Your task to perform on an android device: Look up the best rated coffee maker on Lowe's. Image 0: 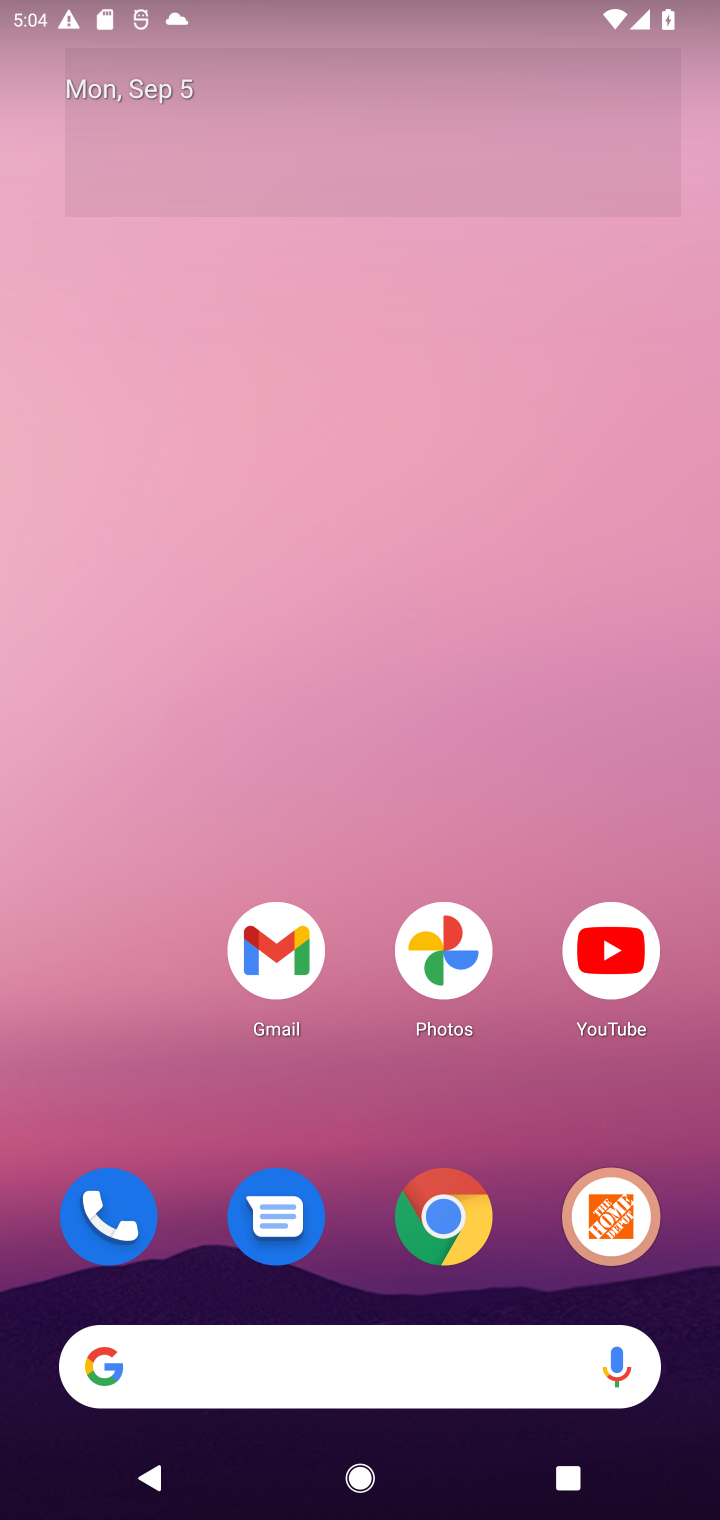
Step 0: click (91, 1375)
Your task to perform on an android device: Look up the best rated coffee maker on Lowe's. Image 1: 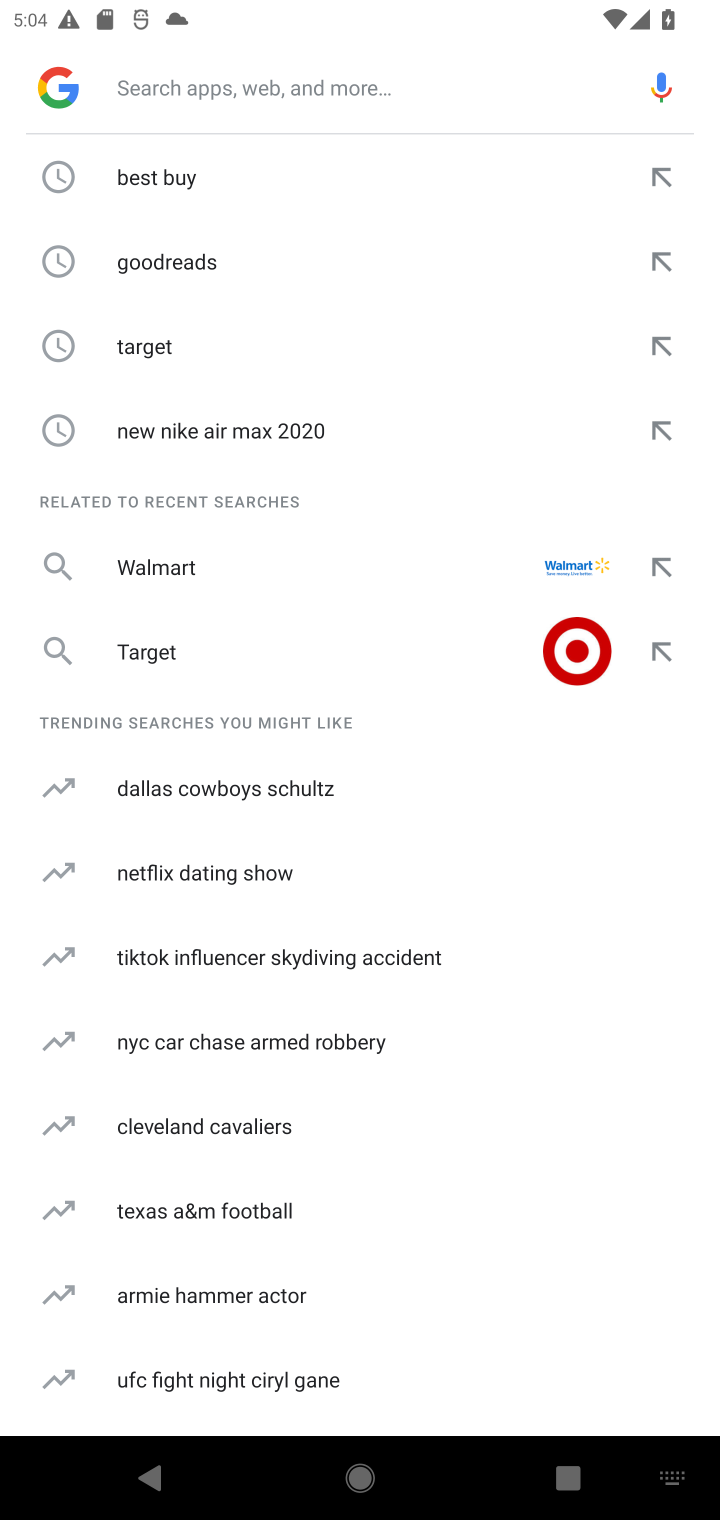
Step 1: type "Lowe's"
Your task to perform on an android device: Look up the best rated coffee maker on Lowe's. Image 2: 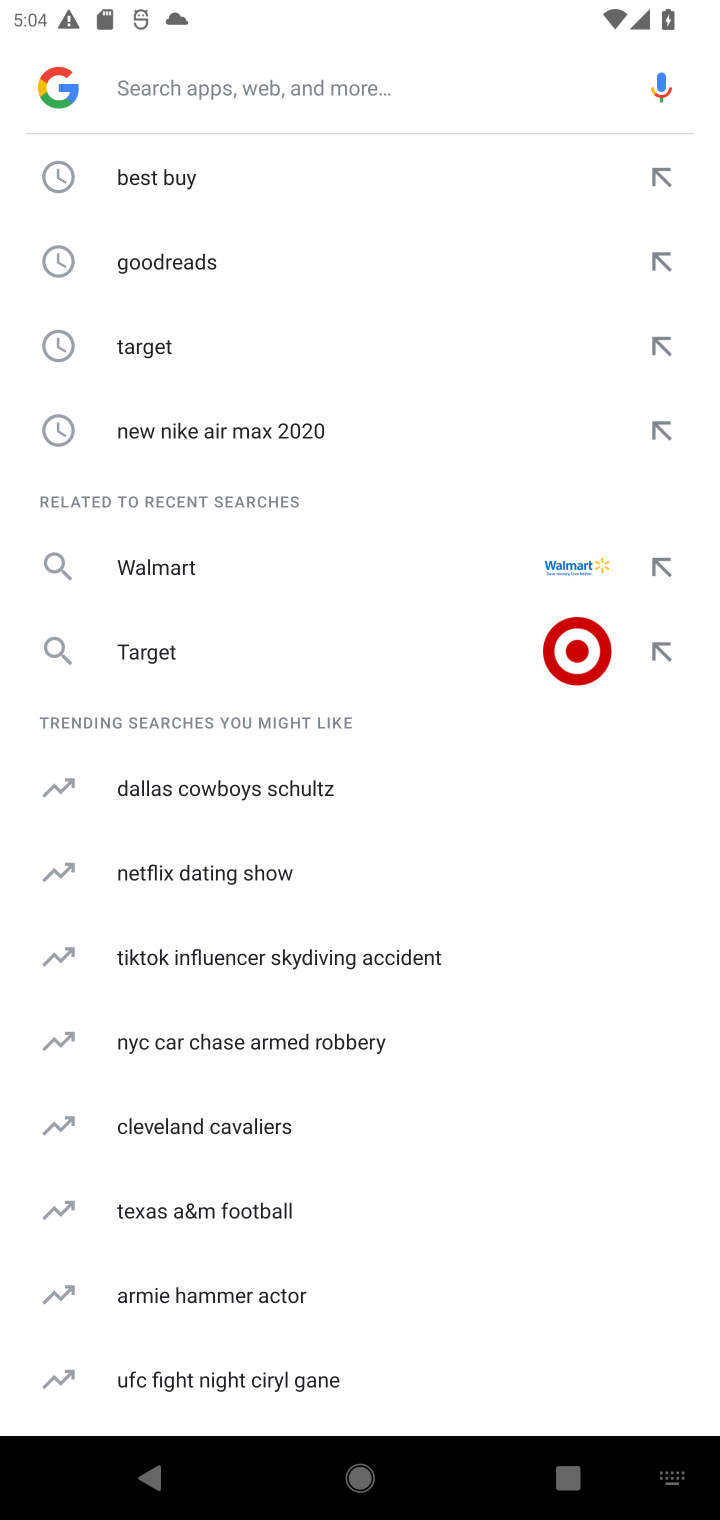
Step 2: click (209, 95)
Your task to perform on an android device: Look up the best rated coffee maker on Lowe's. Image 3: 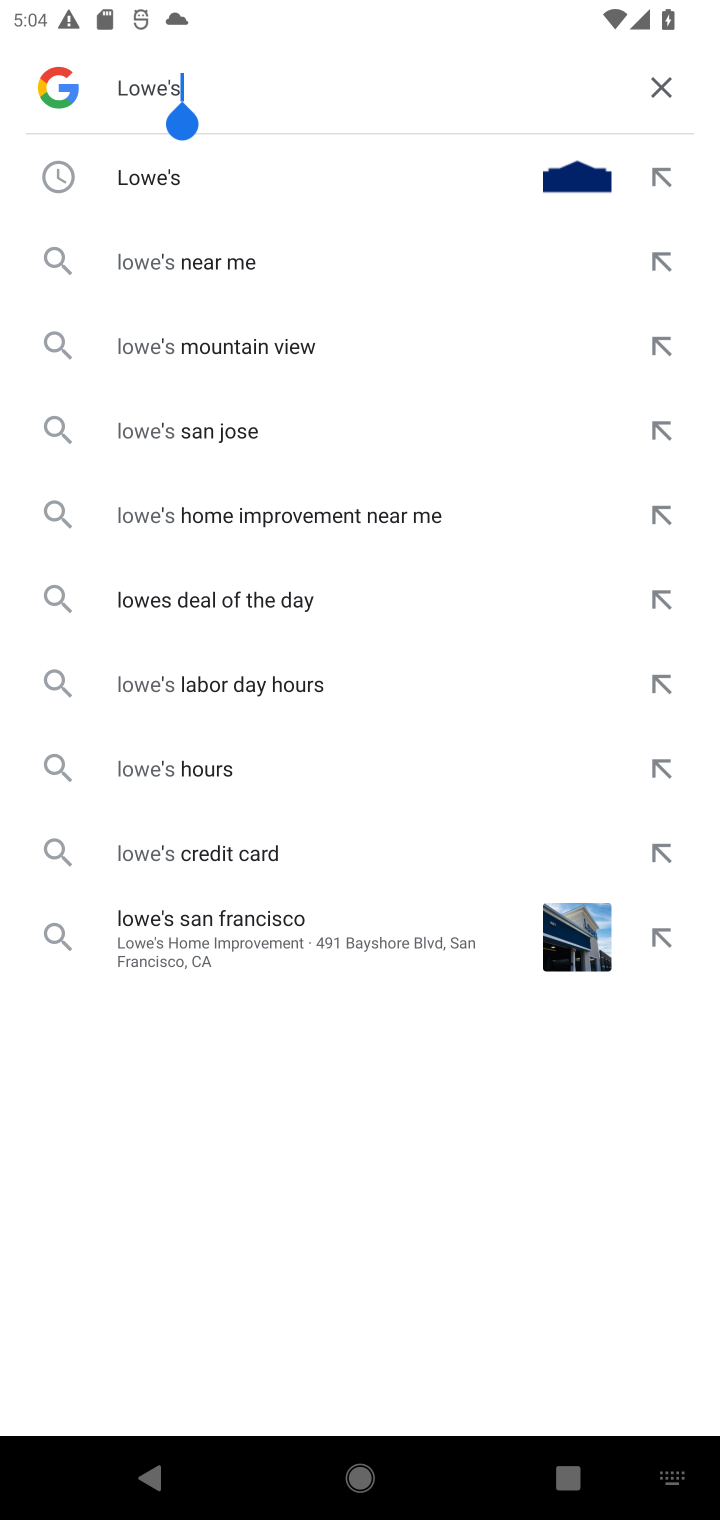
Step 3: press enter
Your task to perform on an android device: Look up the best rated coffee maker on Lowe's. Image 4: 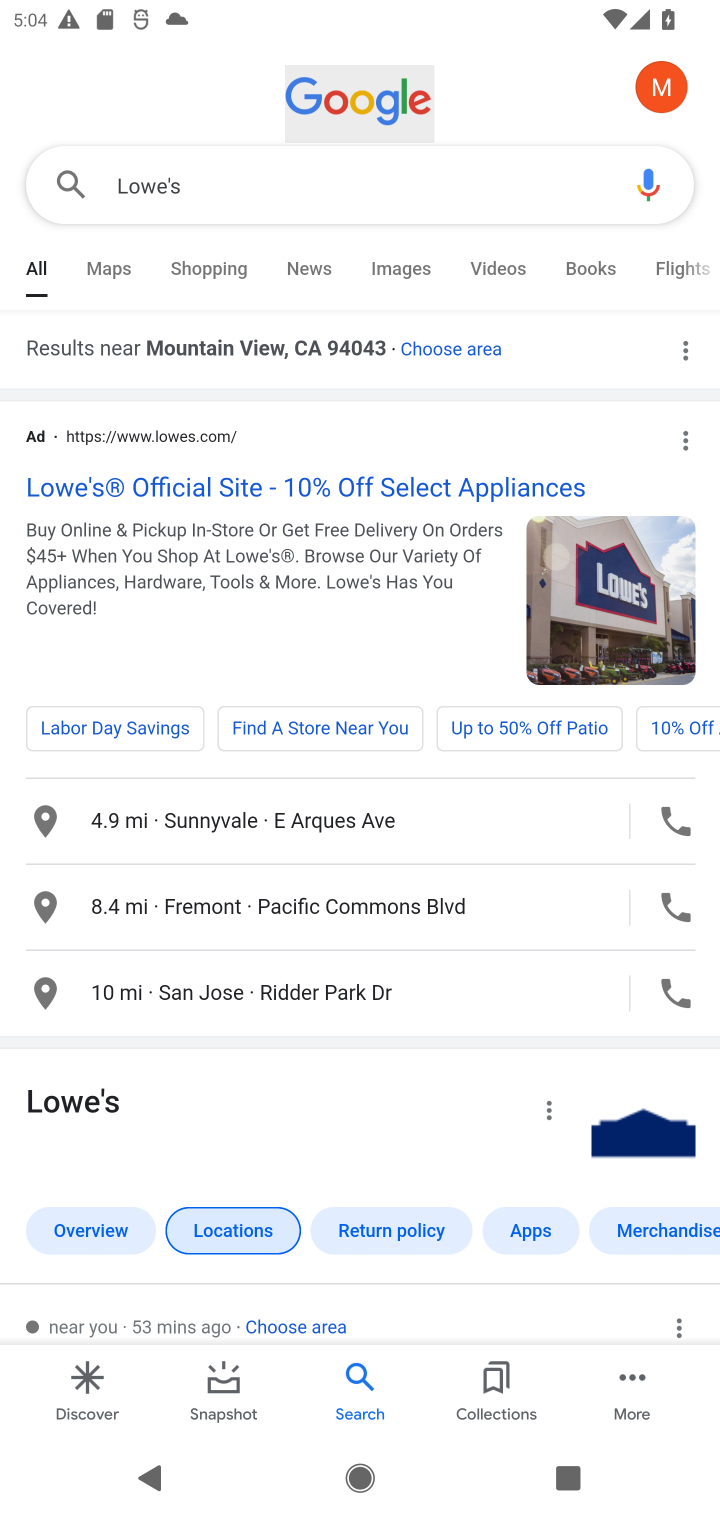
Step 4: drag from (206, 1130) to (212, 202)
Your task to perform on an android device: Look up the best rated coffee maker on Lowe's. Image 5: 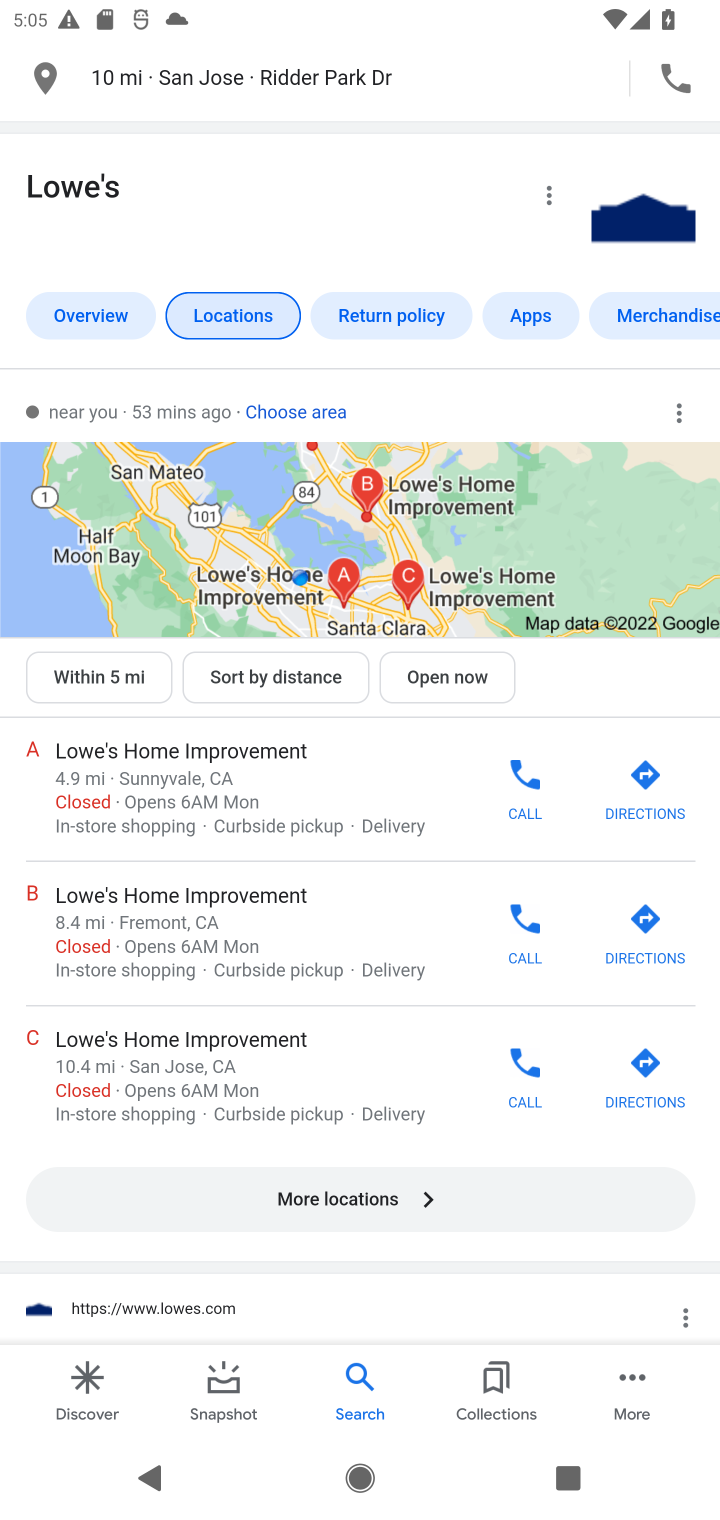
Step 5: drag from (296, 774) to (281, 584)
Your task to perform on an android device: Look up the best rated coffee maker on Lowe's. Image 6: 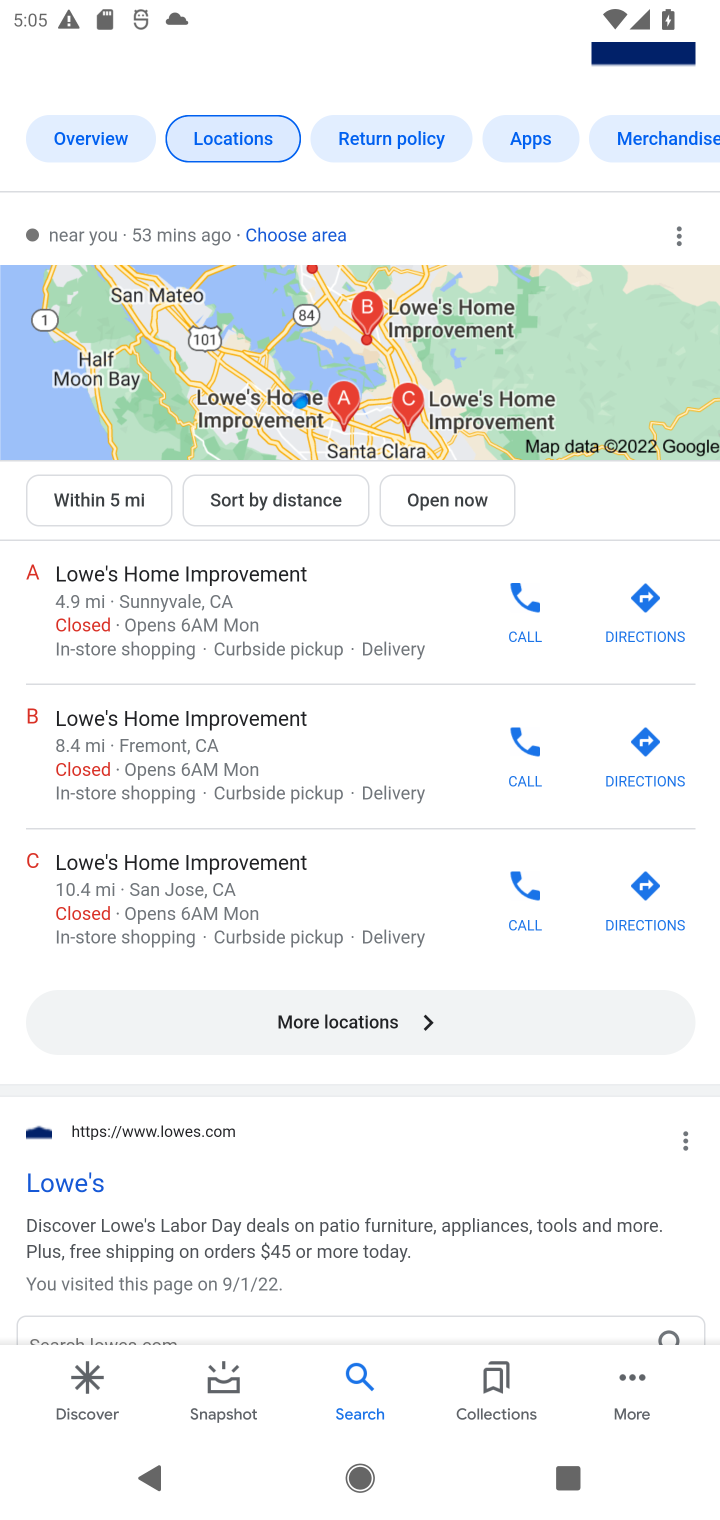
Step 6: click (76, 1184)
Your task to perform on an android device: Look up the best rated coffee maker on Lowe's. Image 7: 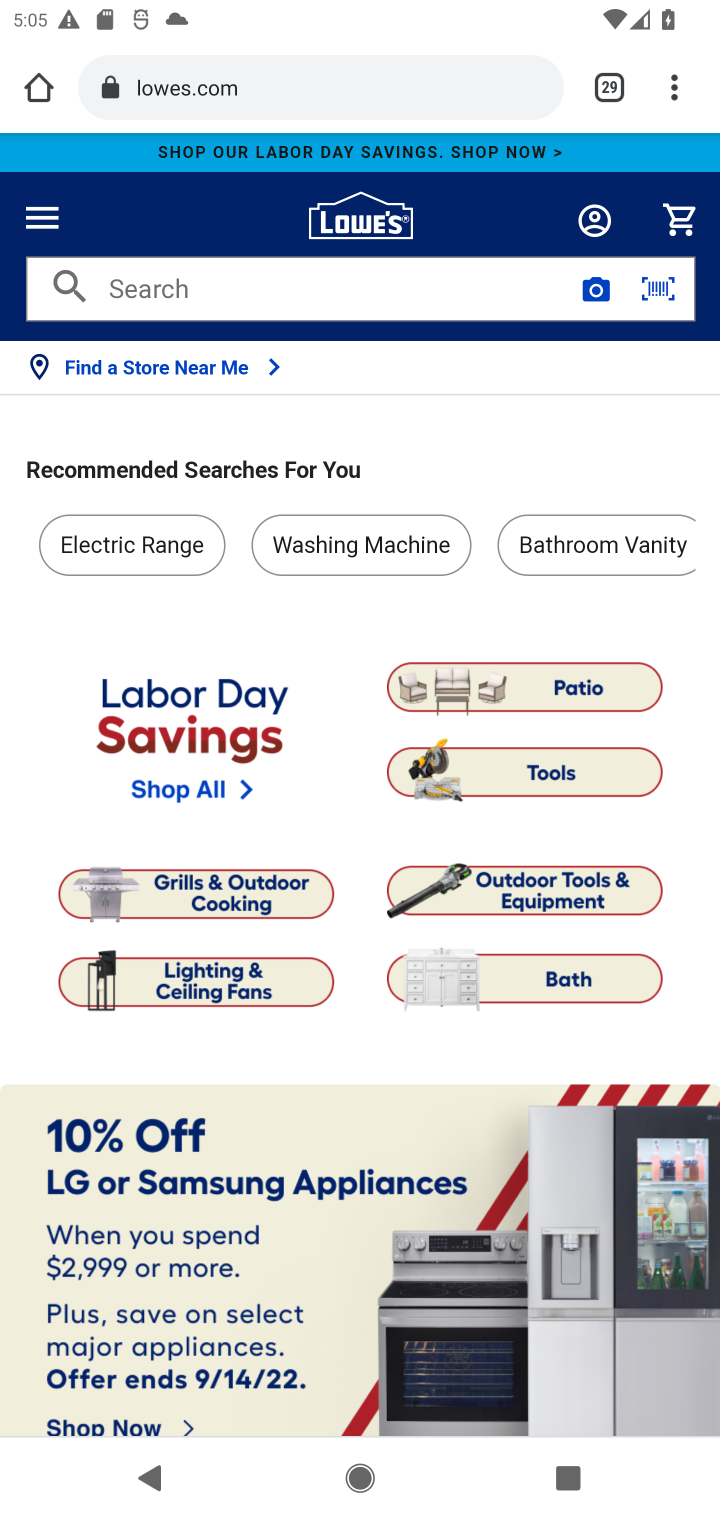
Step 7: click (220, 280)
Your task to perform on an android device: Look up the best rated coffee maker on Lowe's. Image 8: 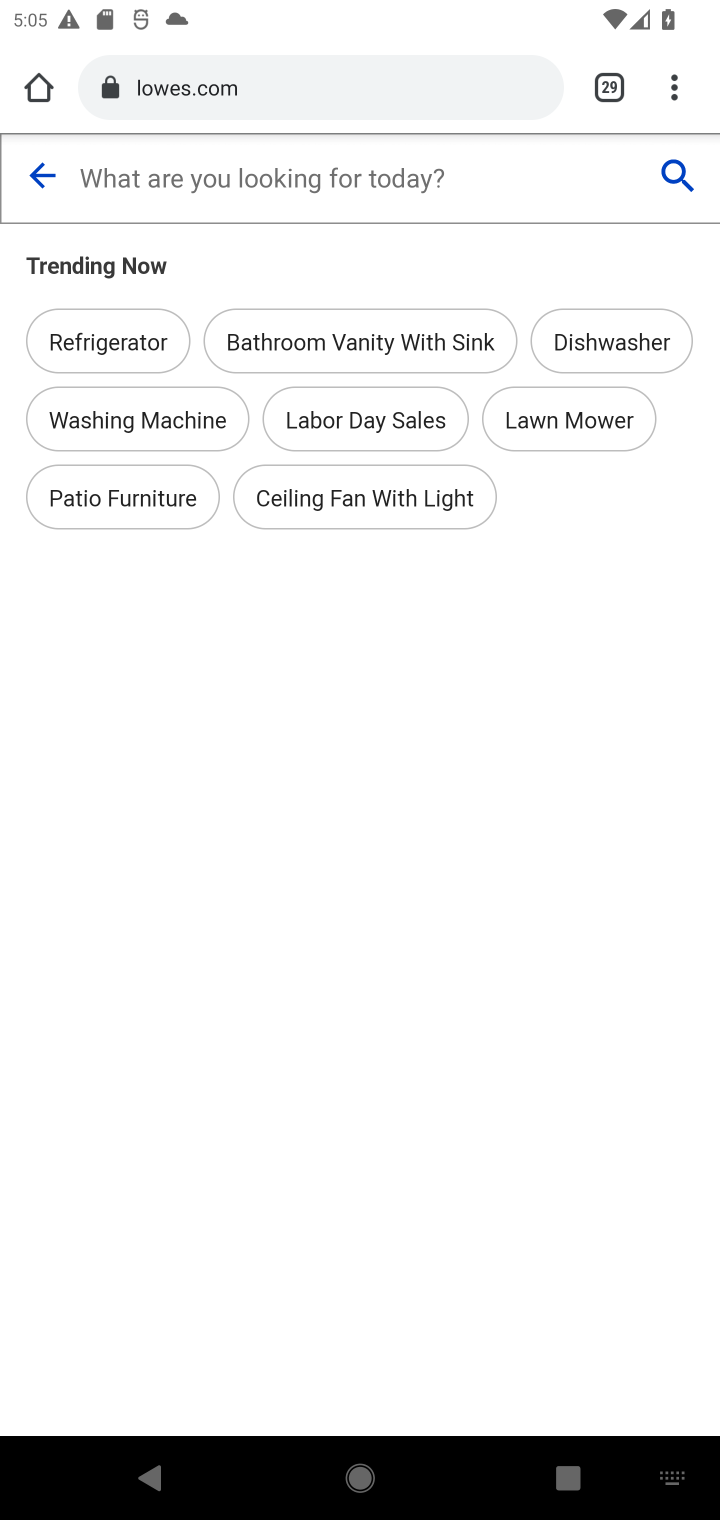
Step 8: type "coffee maker"
Your task to perform on an android device: Look up the best rated coffee maker on Lowe's. Image 9: 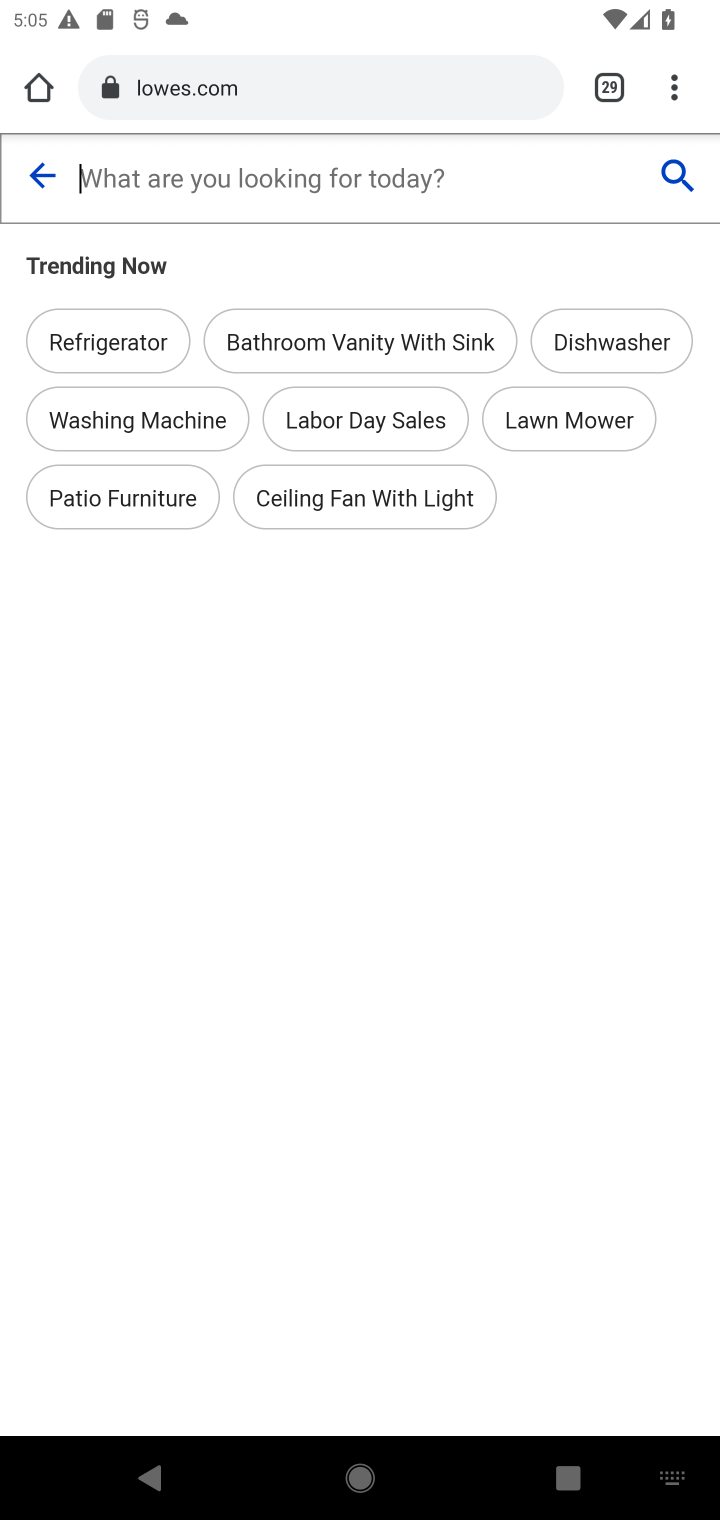
Step 9: click (189, 198)
Your task to perform on an android device: Look up the best rated coffee maker on Lowe's. Image 10: 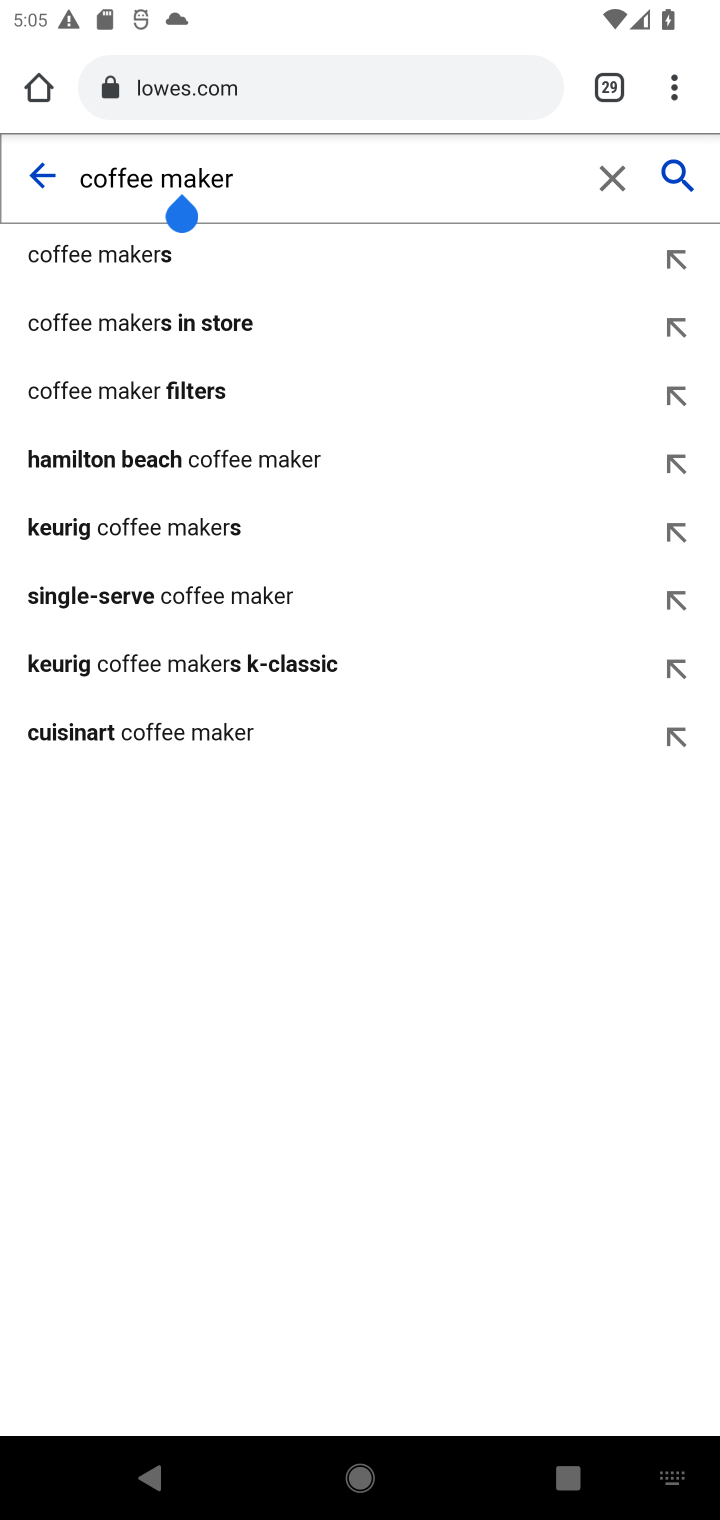
Step 10: press enter
Your task to perform on an android device: Look up the best rated coffee maker on Lowe's. Image 11: 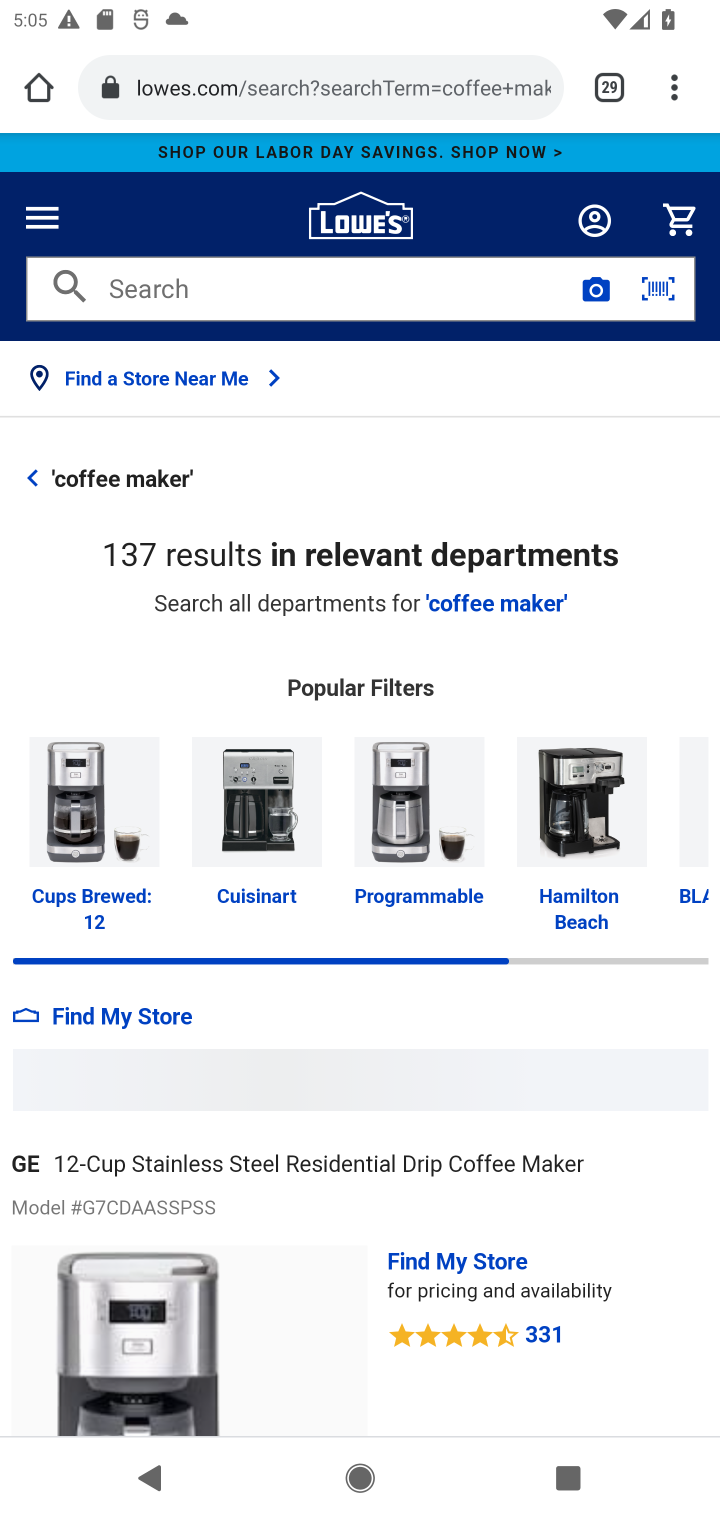
Step 11: drag from (603, 1197) to (547, 589)
Your task to perform on an android device: Look up the best rated coffee maker on Lowe's. Image 12: 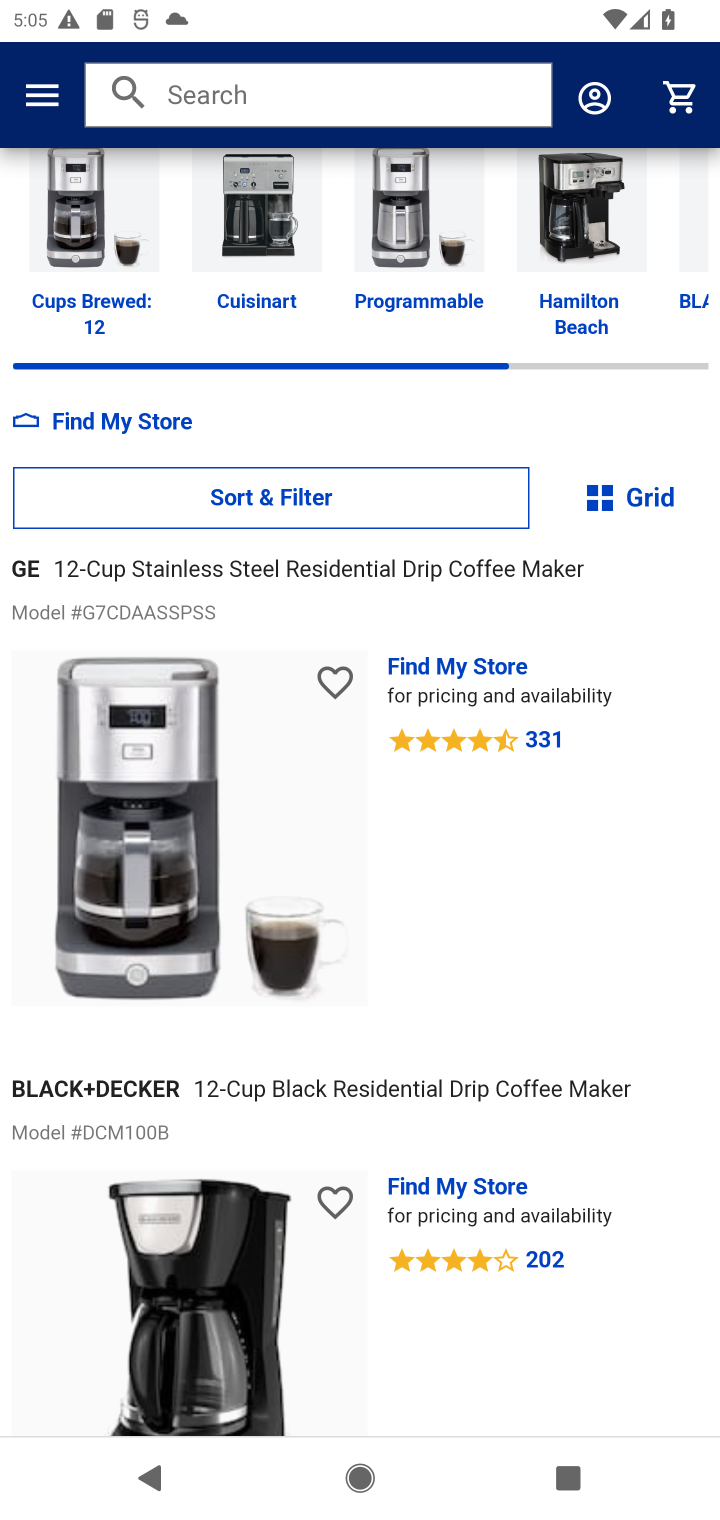
Step 12: click (278, 494)
Your task to perform on an android device: Look up the best rated coffee maker on Lowe's. Image 13: 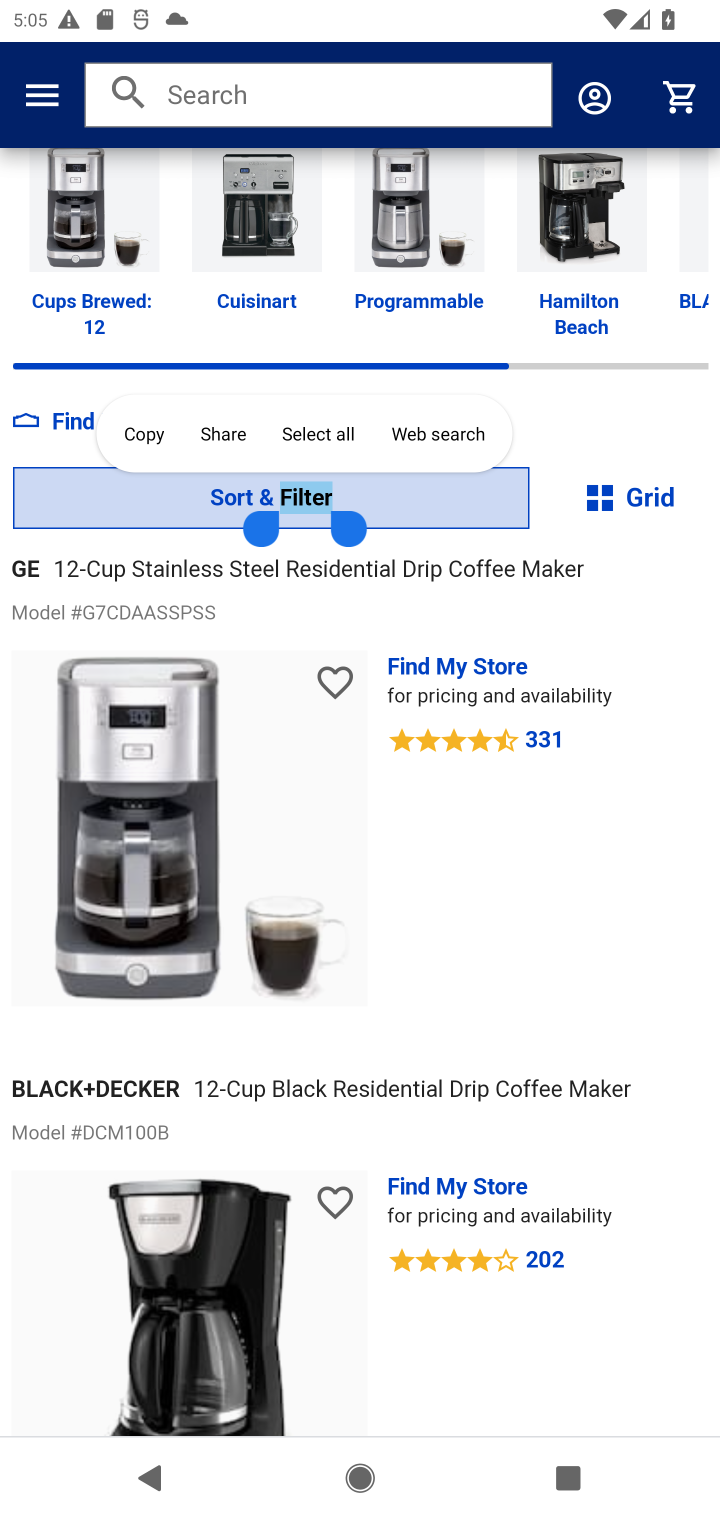
Step 13: click (155, 501)
Your task to perform on an android device: Look up the best rated coffee maker on Lowe's. Image 14: 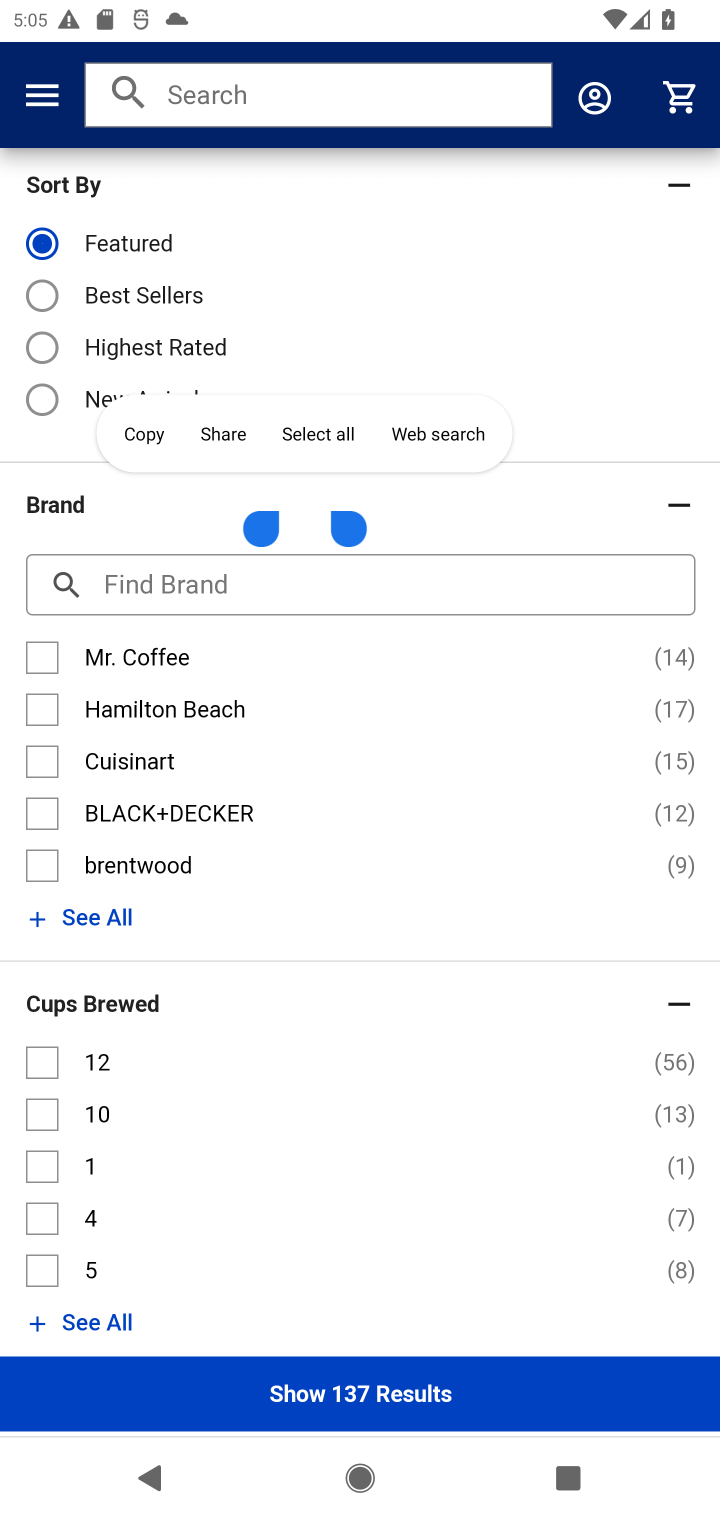
Step 14: drag from (509, 202) to (529, 282)
Your task to perform on an android device: Look up the best rated coffee maker on Lowe's. Image 15: 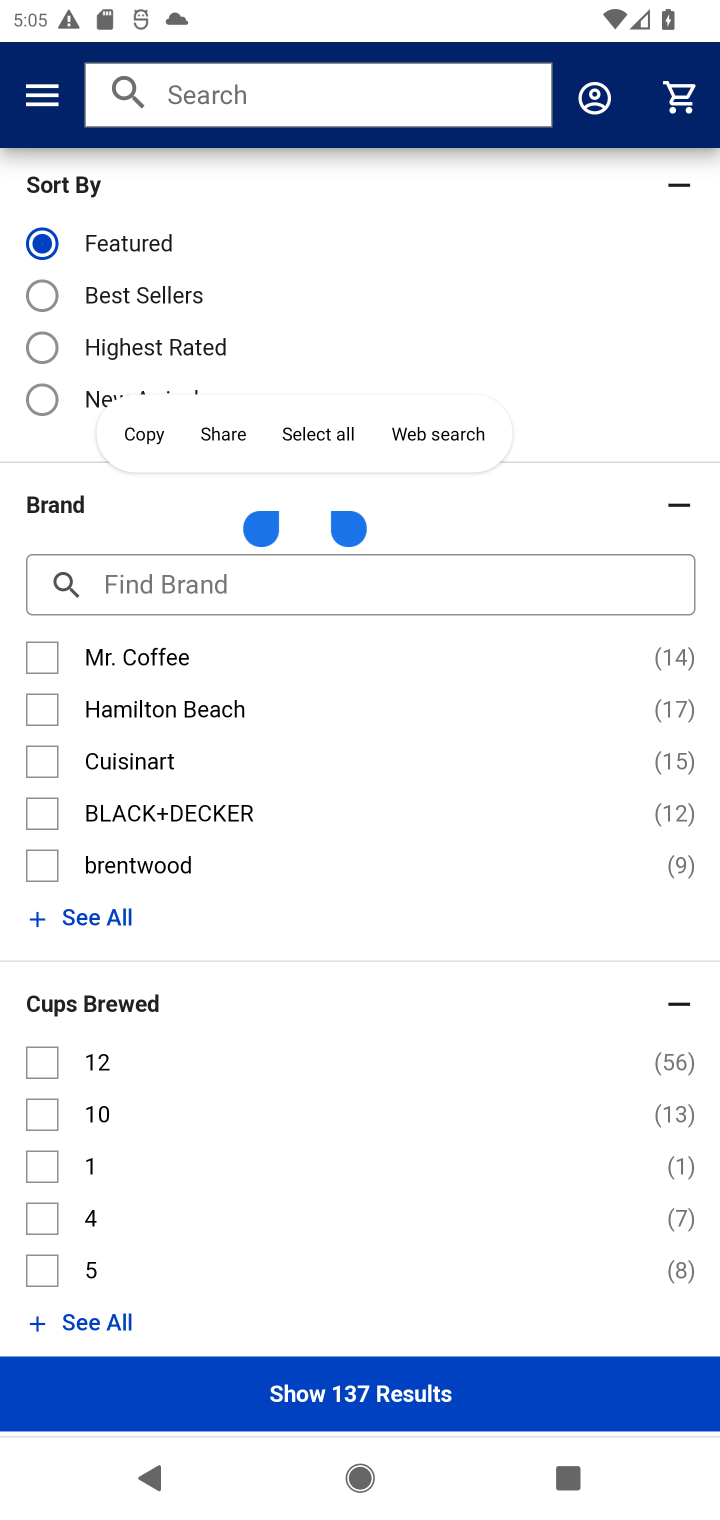
Step 15: click (47, 345)
Your task to perform on an android device: Look up the best rated coffee maker on Lowe's. Image 16: 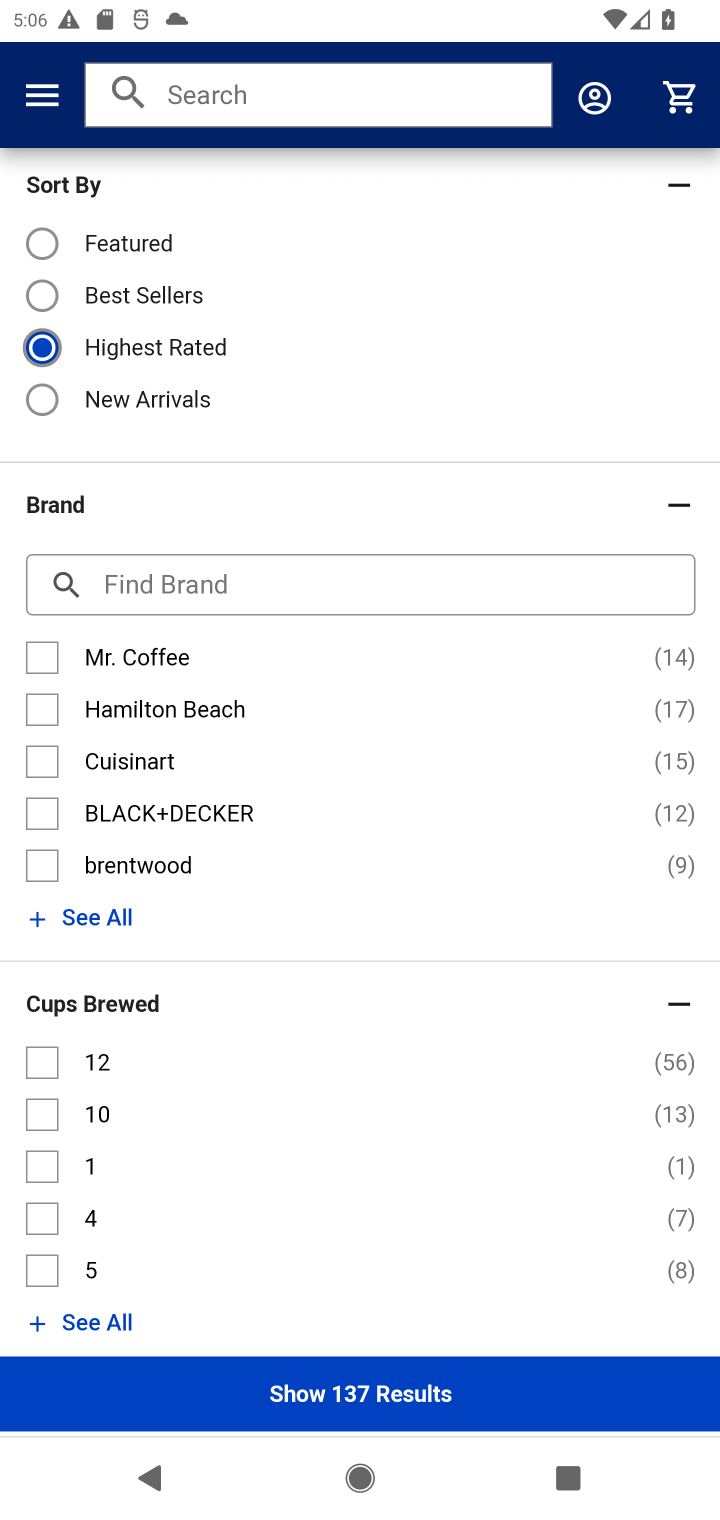
Step 16: click (430, 1375)
Your task to perform on an android device: Look up the best rated coffee maker on Lowe's. Image 17: 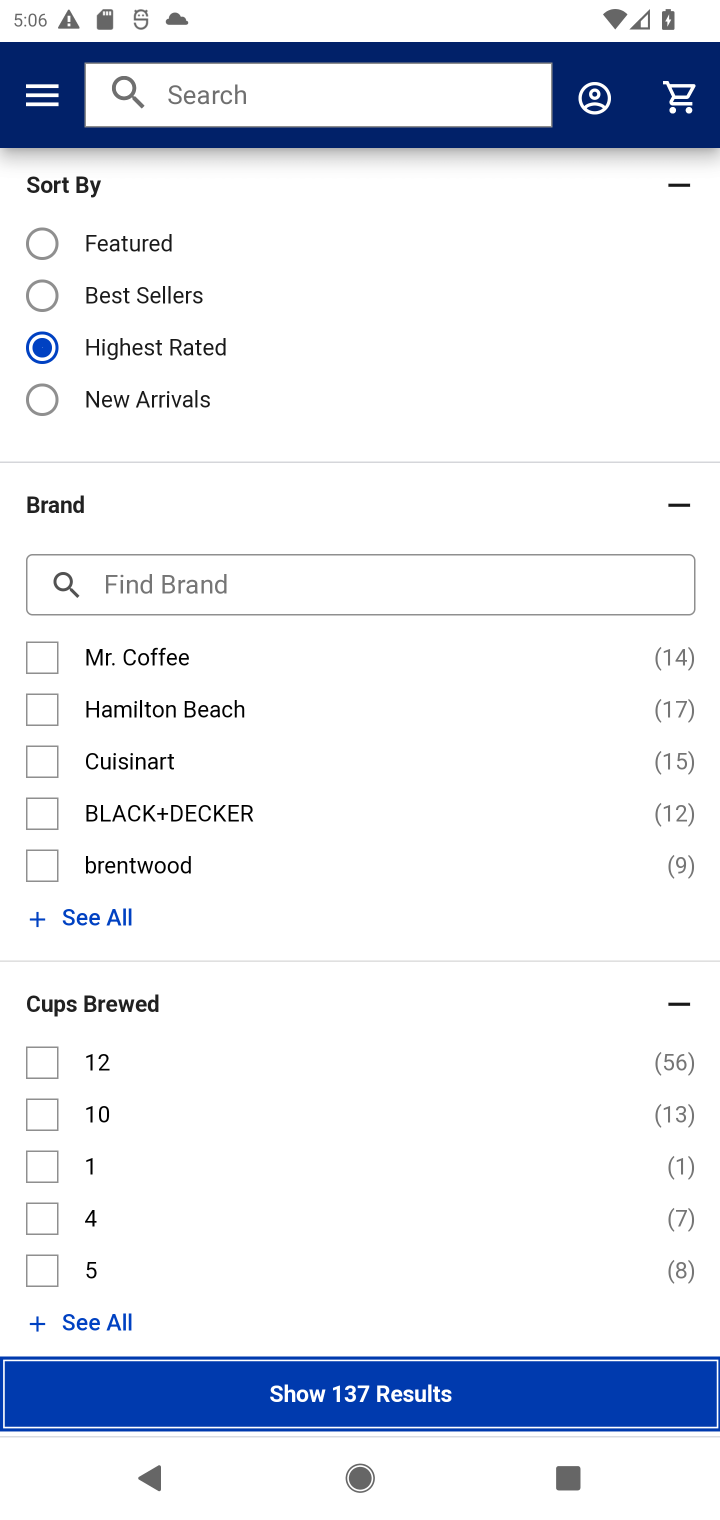
Step 17: click (436, 1408)
Your task to perform on an android device: Look up the best rated coffee maker on Lowe's. Image 18: 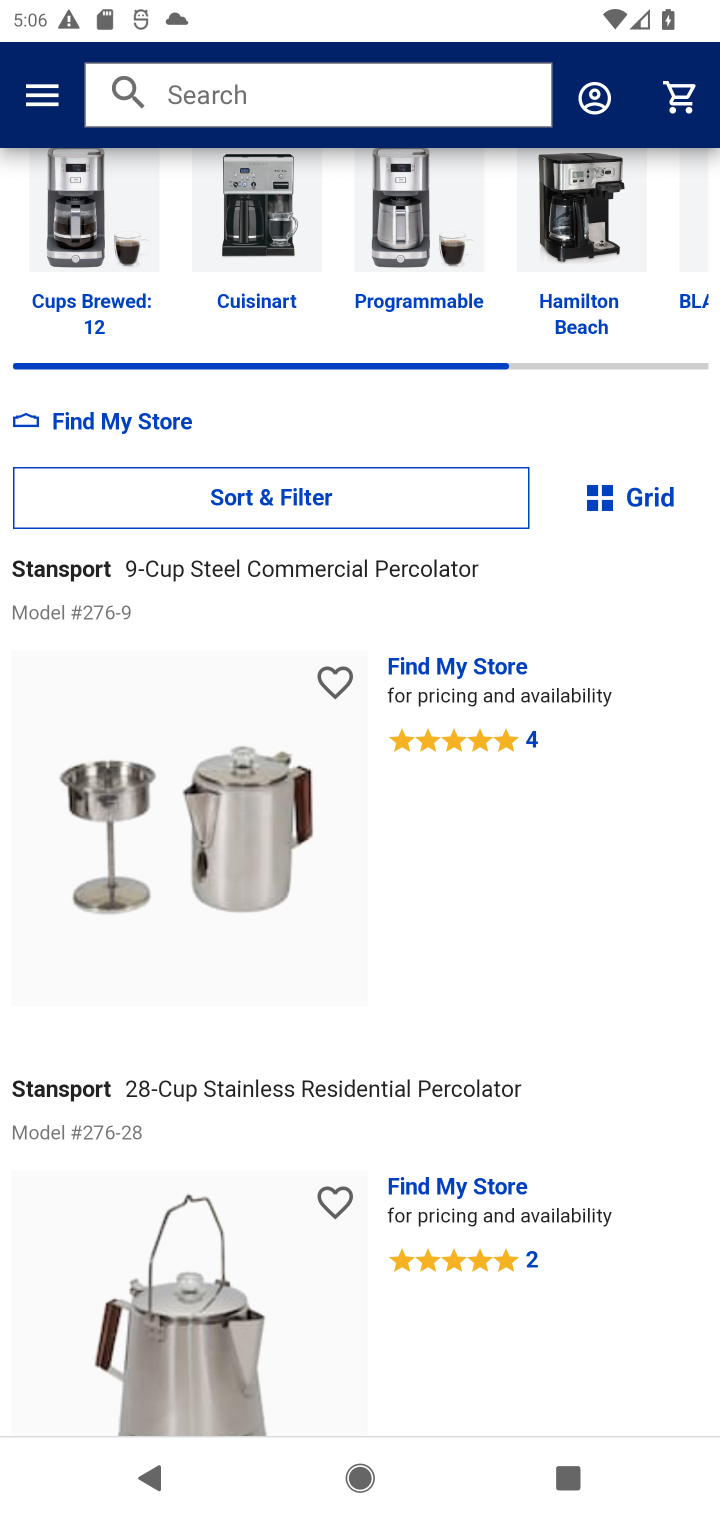
Step 18: task complete